Your task to perform on an android device: refresh tabs in the chrome app Image 0: 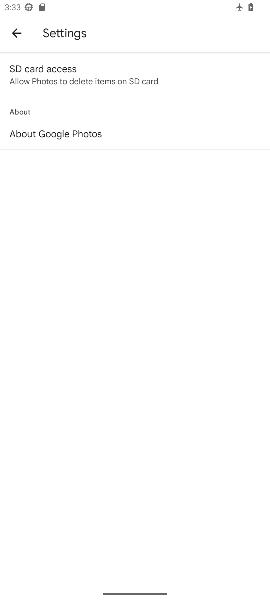
Step 0: press home button
Your task to perform on an android device: refresh tabs in the chrome app Image 1: 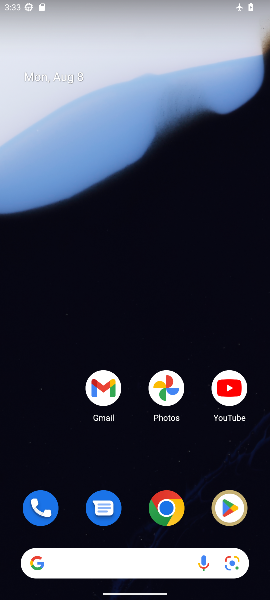
Step 1: click (168, 504)
Your task to perform on an android device: refresh tabs in the chrome app Image 2: 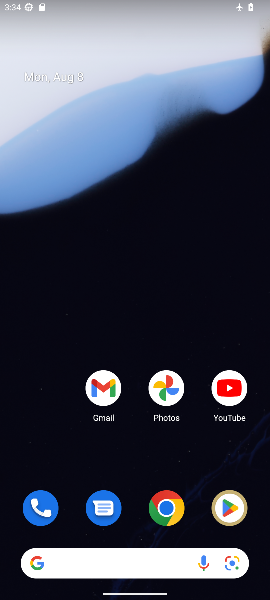
Step 2: click (165, 505)
Your task to perform on an android device: refresh tabs in the chrome app Image 3: 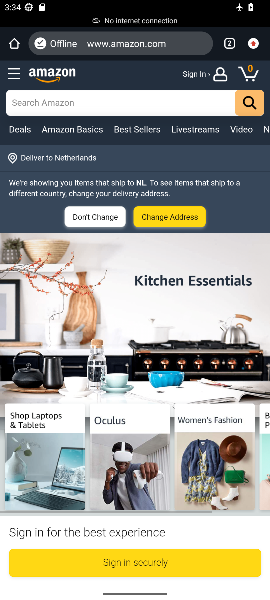
Step 3: click (256, 41)
Your task to perform on an android device: refresh tabs in the chrome app Image 4: 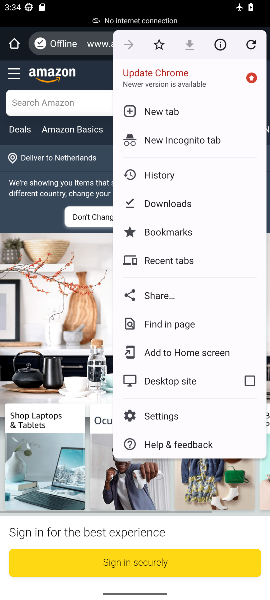
Step 4: click (254, 42)
Your task to perform on an android device: refresh tabs in the chrome app Image 5: 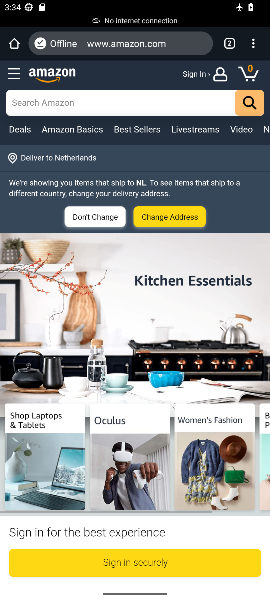
Step 5: task complete